Your task to perform on an android device: open a new tab in the chrome app Image 0: 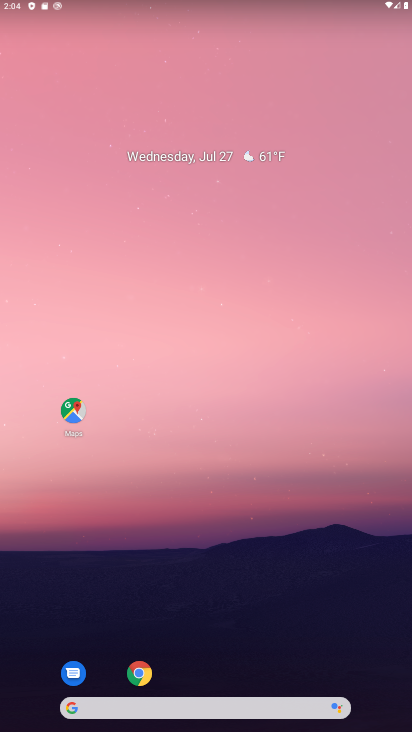
Step 0: click (142, 670)
Your task to perform on an android device: open a new tab in the chrome app Image 1: 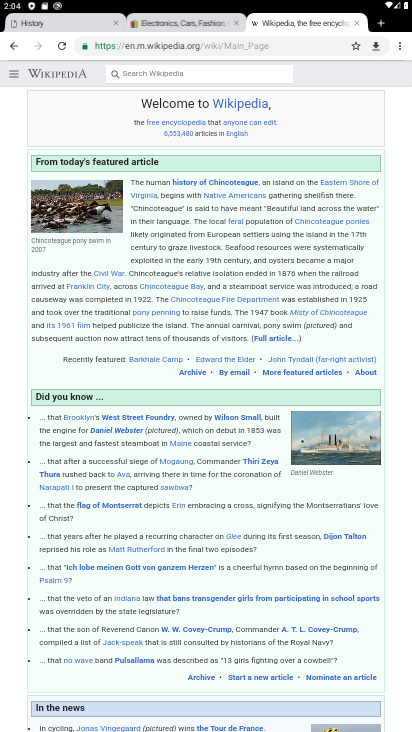
Step 1: click (385, 19)
Your task to perform on an android device: open a new tab in the chrome app Image 2: 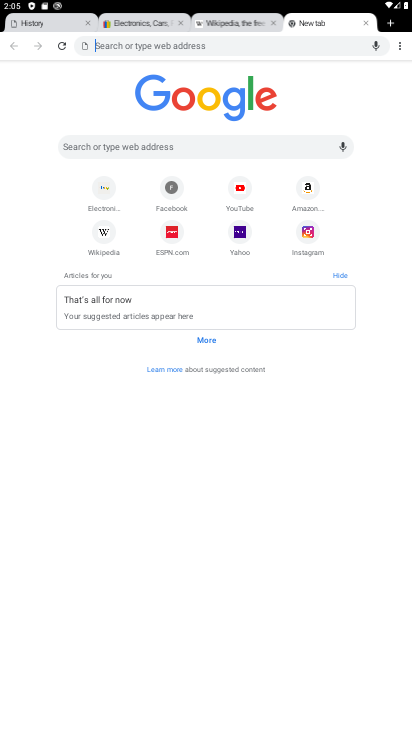
Step 2: task complete